Your task to perform on an android device: Is it going to rain today? Image 0: 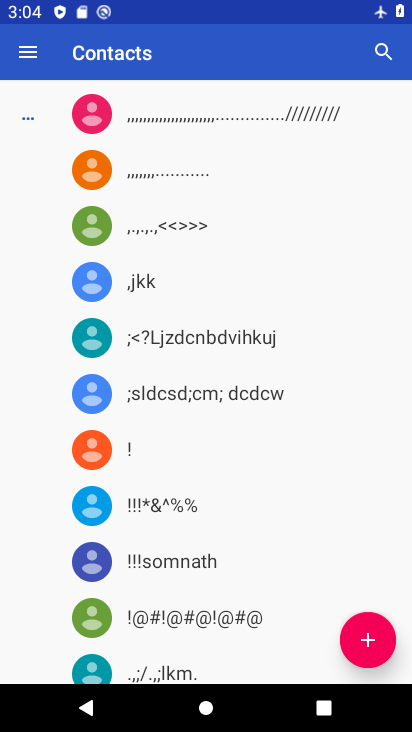
Step 0: press home button
Your task to perform on an android device: Is it going to rain today? Image 1: 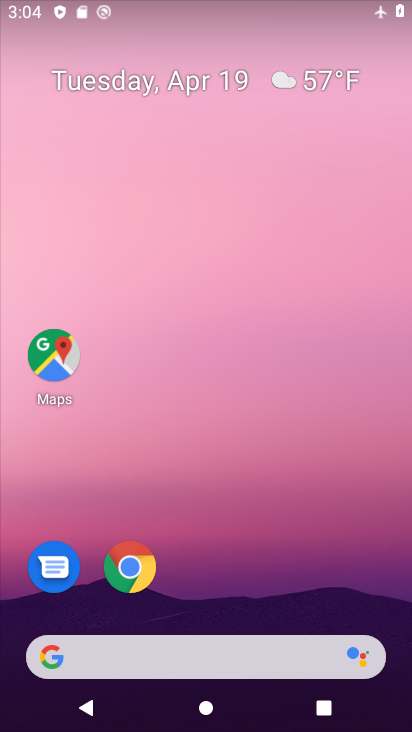
Step 1: click (243, 655)
Your task to perform on an android device: Is it going to rain today? Image 2: 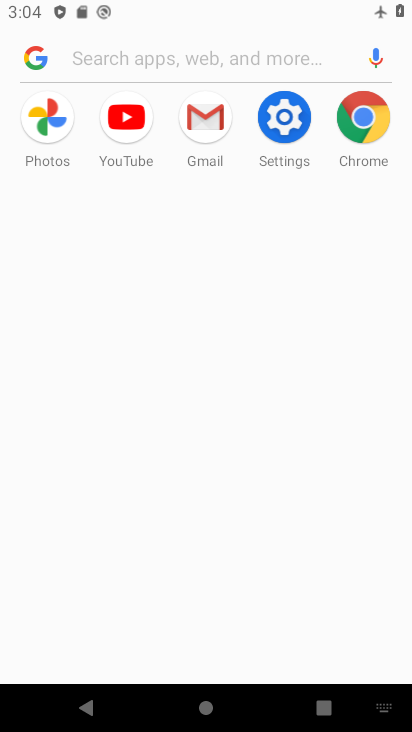
Step 2: click (156, 62)
Your task to perform on an android device: Is it going to rain today? Image 3: 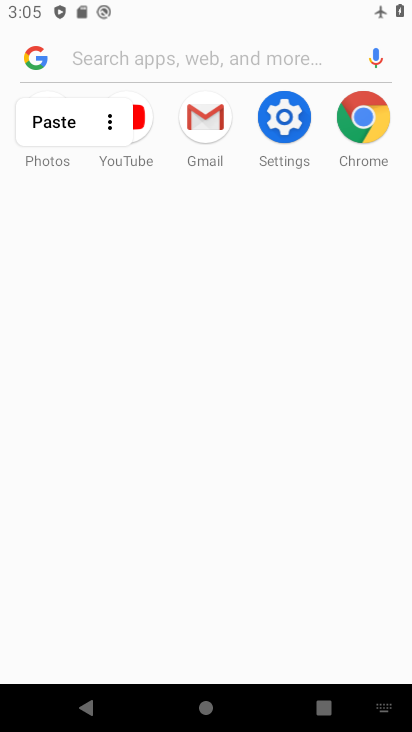
Step 3: type "wheter"
Your task to perform on an android device: Is it going to rain today? Image 4: 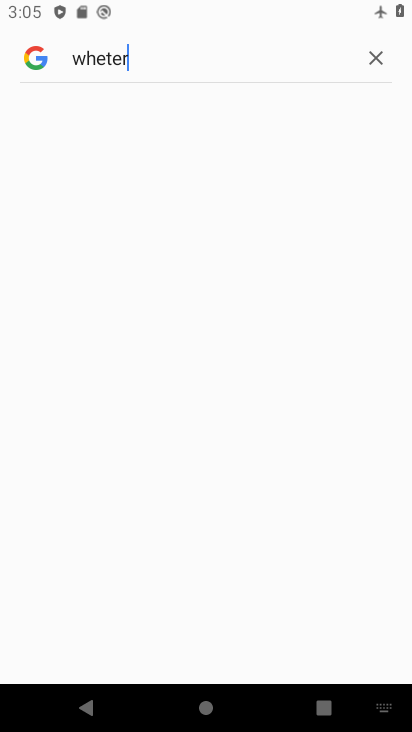
Step 4: task complete